Your task to perform on an android device: Open Yahoo.com Image 0: 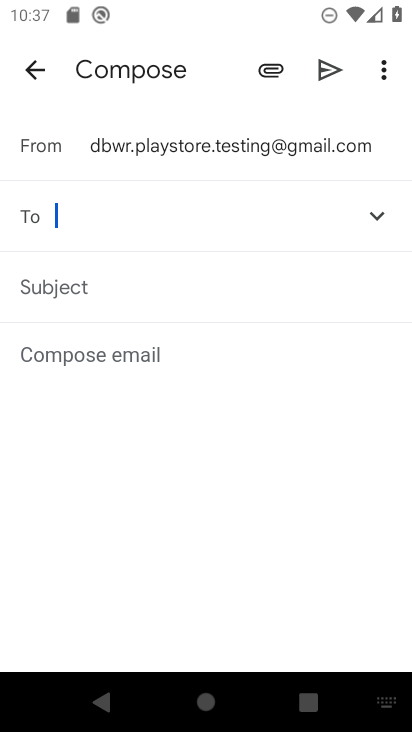
Step 0: press home button
Your task to perform on an android device: Open Yahoo.com Image 1: 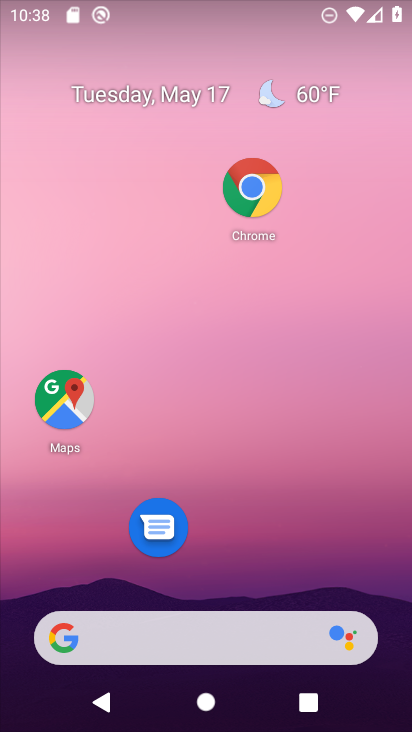
Step 1: click (258, 226)
Your task to perform on an android device: Open Yahoo.com Image 2: 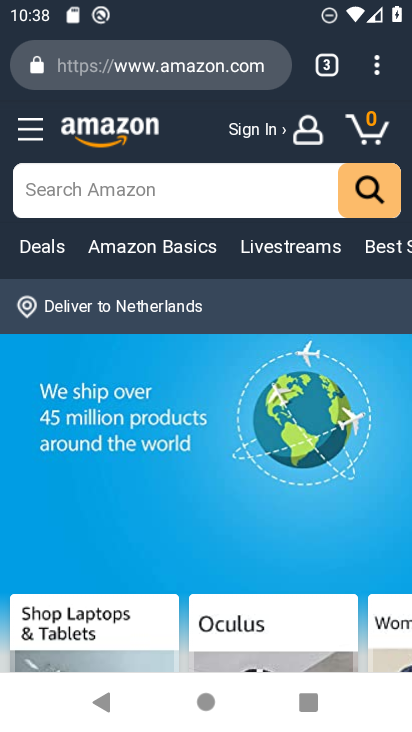
Step 2: click (201, 82)
Your task to perform on an android device: Open Yahoo.com Image 3: 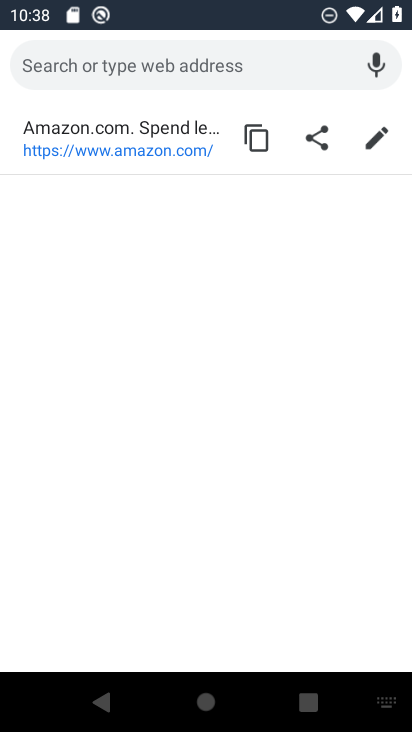
Step 3: type "yahoo.com"
Your task to perform on an android device: Open Yahoo.com Image 4: 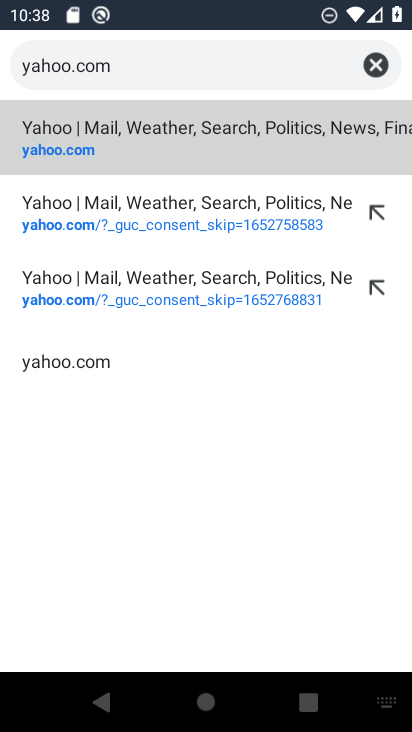
Step 4: click (37, 125)
Your task to perform on an android device: Open Yahoo.com Image 5: 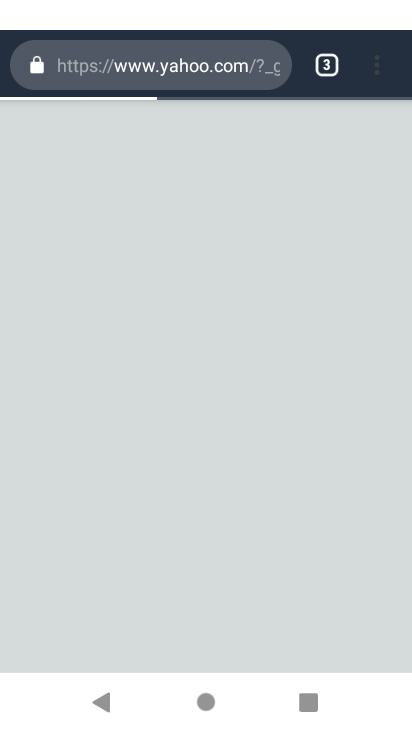
Step 5: task complete